Your task to perform on an android device: find photos in the google photos app Image 0: 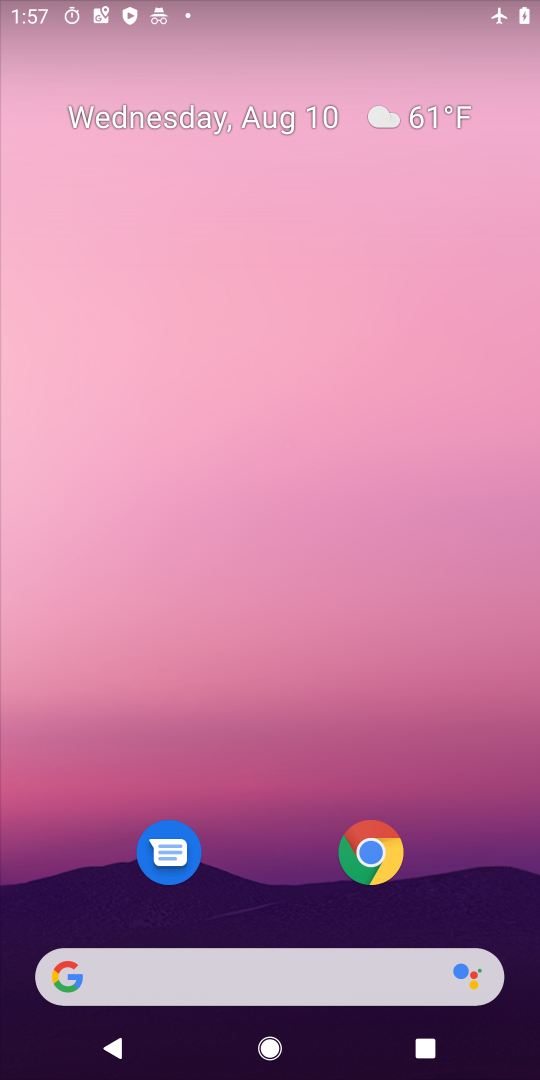
Step 0: drag from (271, 892) to (315, 4)
Your task to perform on an android device: find photos in the google photos app Image 1: 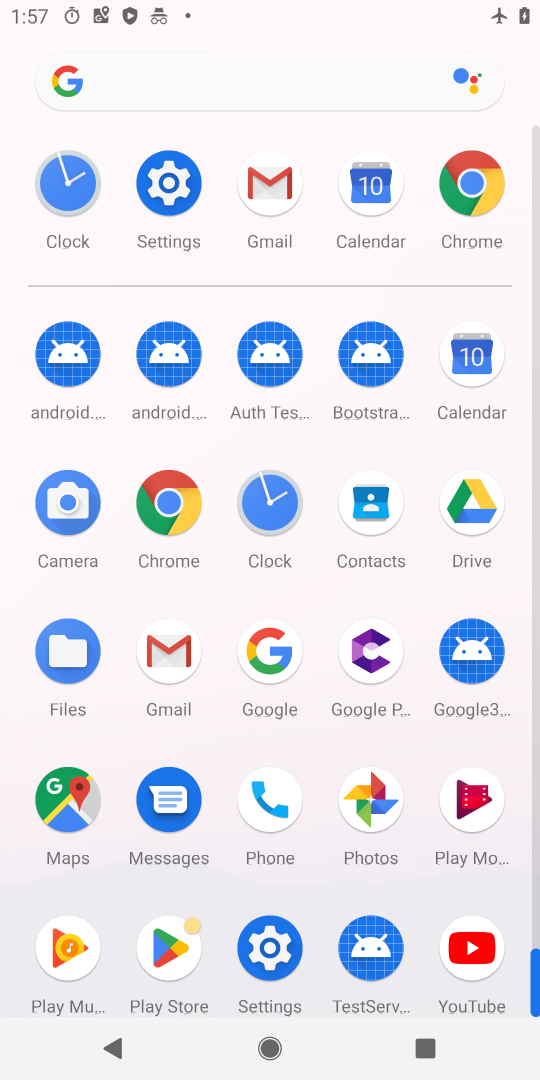
Step 1: click (348, 798)
Your task to perform on an android device: find photos in the google photos app Image 2: 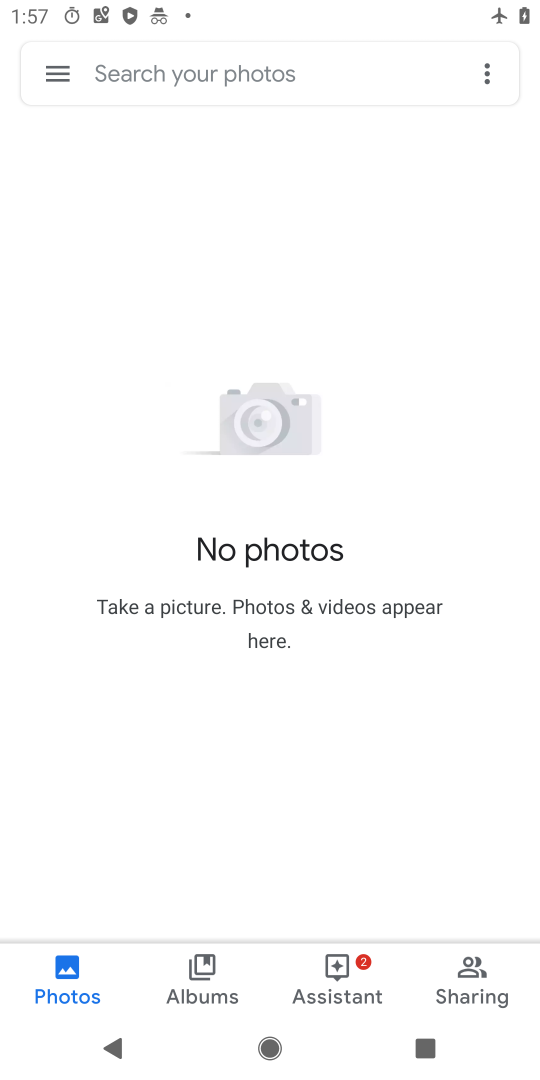
Step 2: task complete